Your task to perform on an android device: turn off notifications in google photos Image 0: 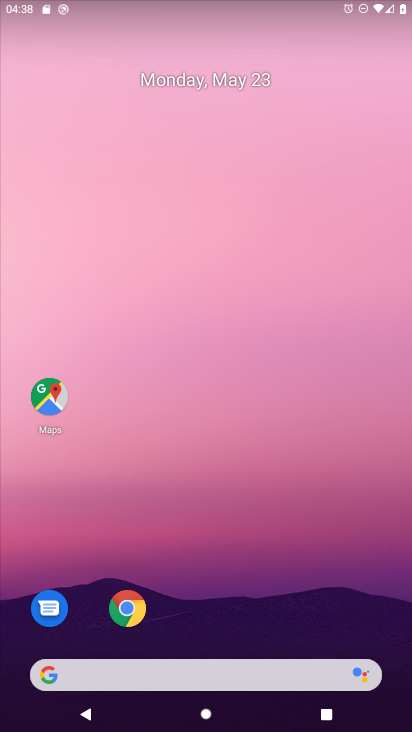
Step 0: drag from (277, 638) to (293, 264)
Your task to perform on an android device: turn off notifications in google photos Image 1: 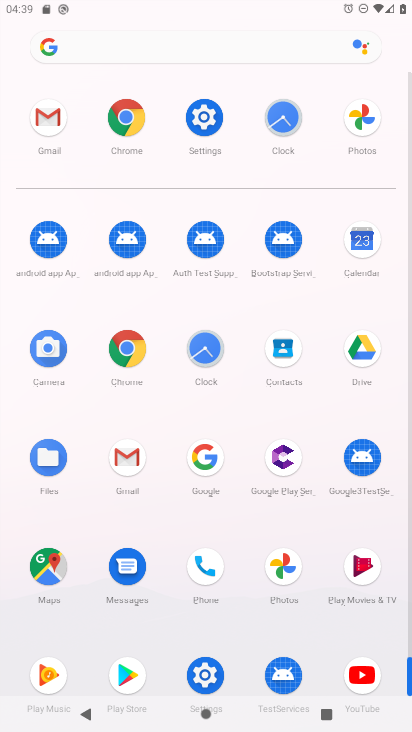
Step 1: click (278, 564)
Your task to perform on an android device: turn off notifications in google photos Image 2: 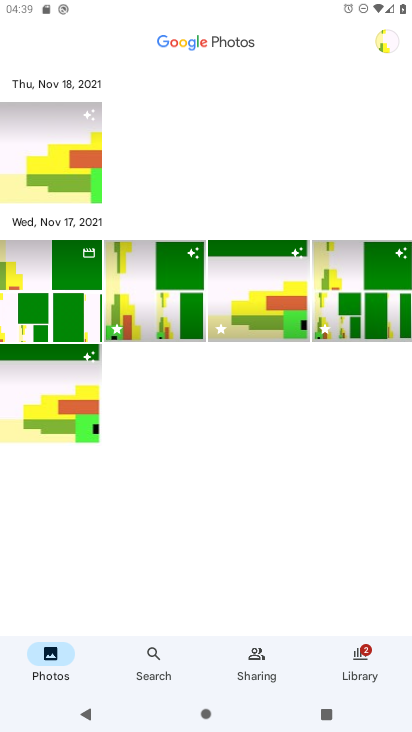
Step 2: click (385, 41)
Your task to perform on an android device: turn off notifications in google photos Image 3: 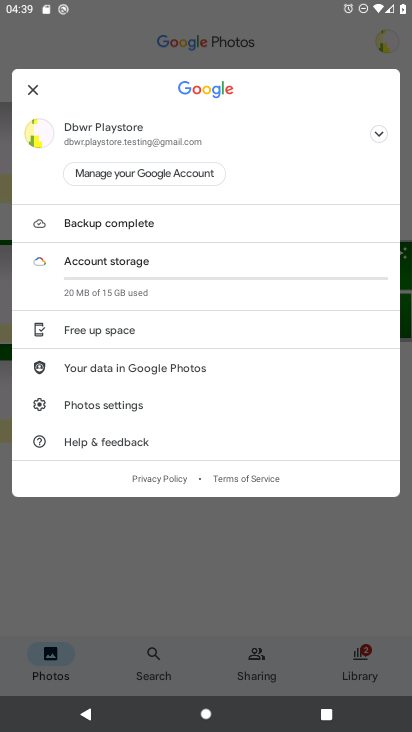
Step 3: click (122, 402)
Your task to perform on an android device: turn off notifications in google photos Image 4: 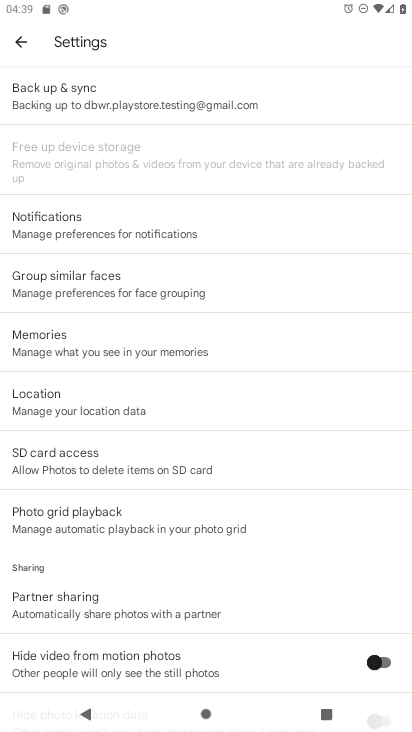
Step 4: click (89, 233)
Your task to perform on an android device: turn off notifications in google photos Image 5: 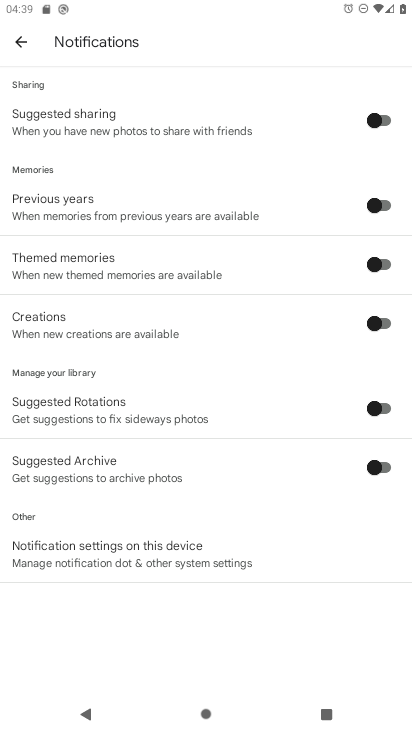
Step 5: click (118, 547)
Your task to perform on an android device: turn off notifications in google photos Image 6: 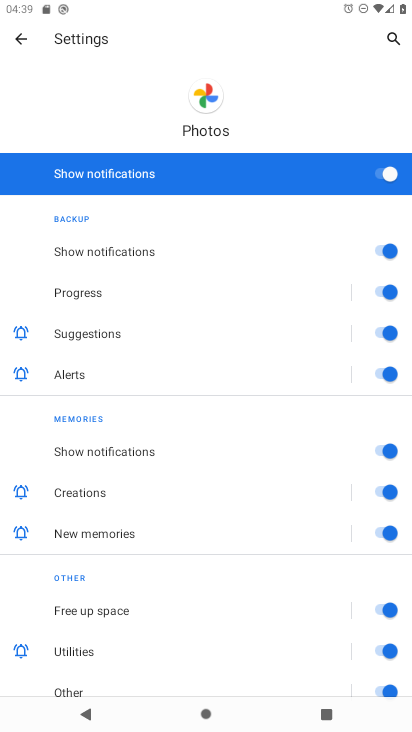
Step 6: click (389, 172)
Your task to perform on an android device: turn off notifications in google photos Image 7: 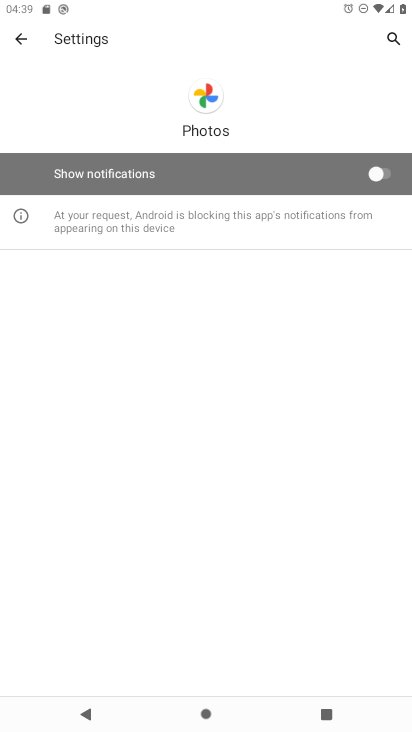
Step 7: task complete